Your task to perform on an android device: Search for Mexican restaurants on Maps Image 0: 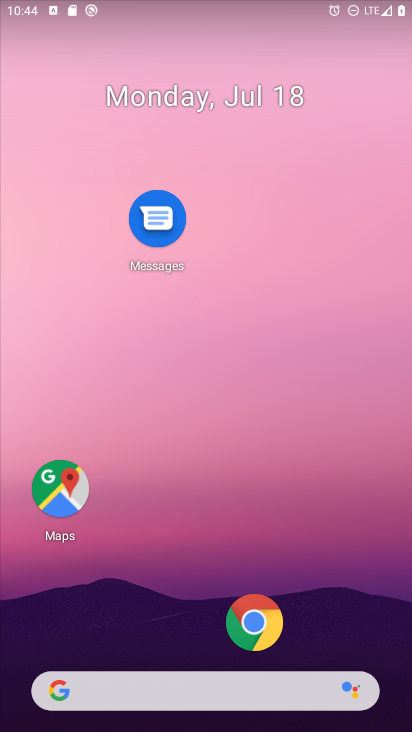
Step 0: drag from (258, 652) to (327, 289)
Your task to perform on an android device: Search for Mexican restaurants on Maps Image 1: 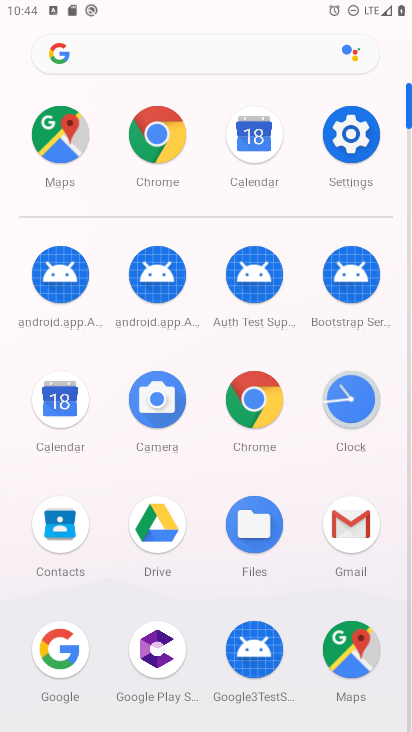
Step 1: click (352, 655)
Your task to perform on an android device: Search for Mexican restaurants on Maps Image 2: 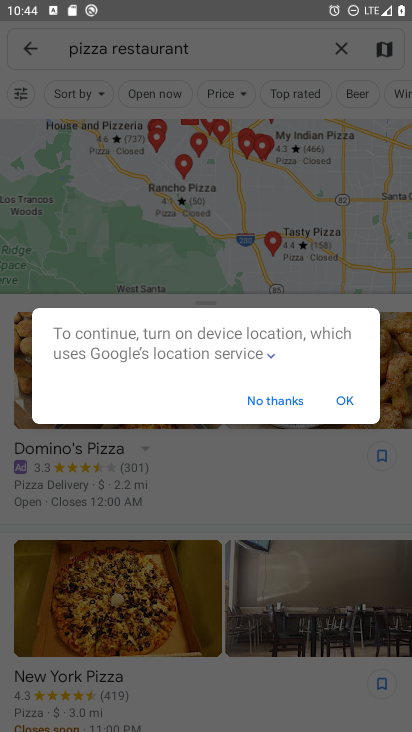
Step 2: click (349, 405)
Your task to perform on an android device: Search for Mexican restaurants on Maps Image 3: 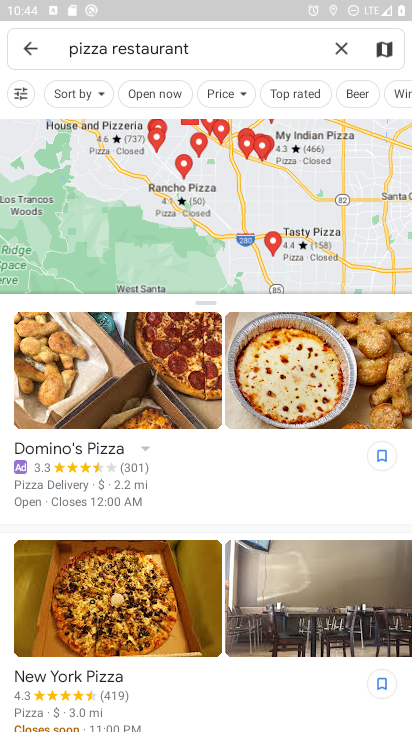
Step 3: click (344, 52)
Your task to perform on an android device: Search for Mexican restaurants on Maps Image 4: 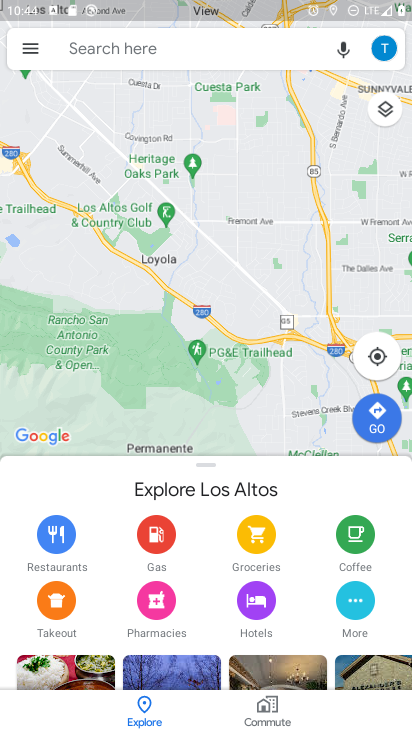
Step 4: click (196, 58)
Your task to perform on an android device: Search for Mexican restaurants on Maps Image 5: 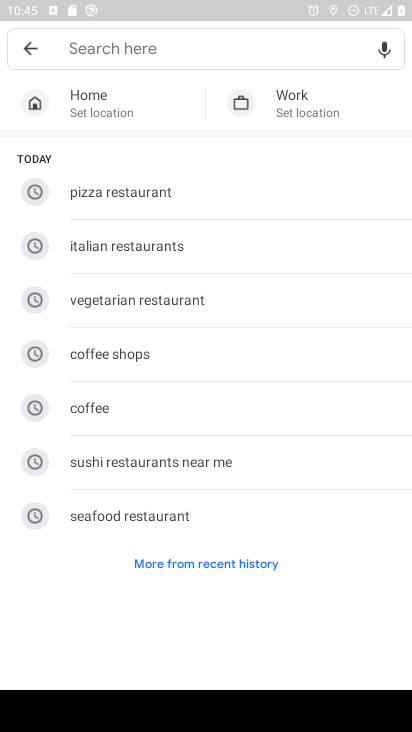
Step 5: type "mexican restaurants"
Your task to perform on an android device: Search for Mexican restaurants on Maps Image 6: 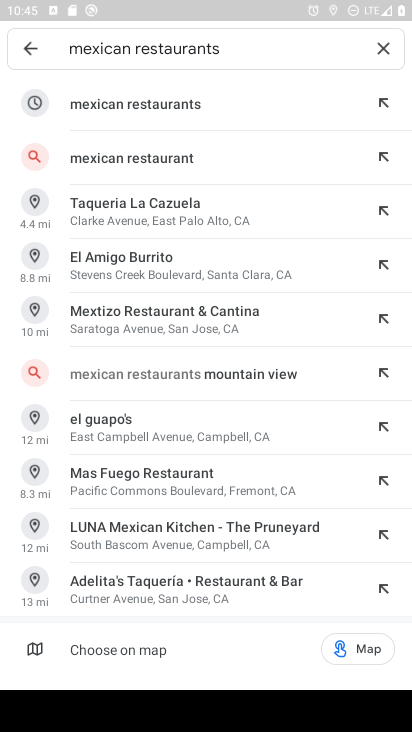
Step 6: click (182, 157)
Your task to perform on an android device: Search for Mexican restaurants on Maps Image 7: 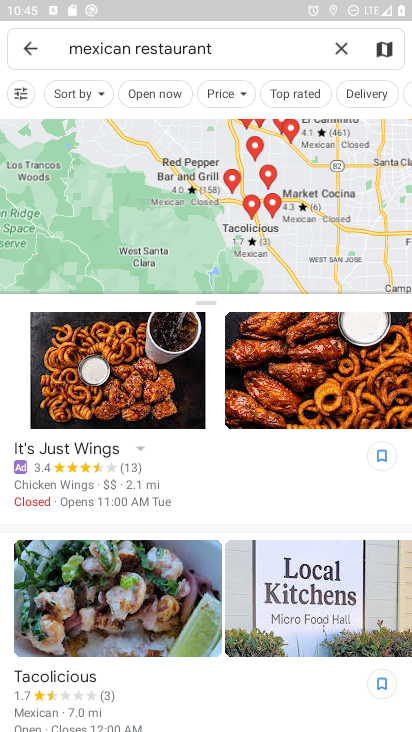
Step 7: task complete